Your task to perform on an android device: Go to settings Image 0: 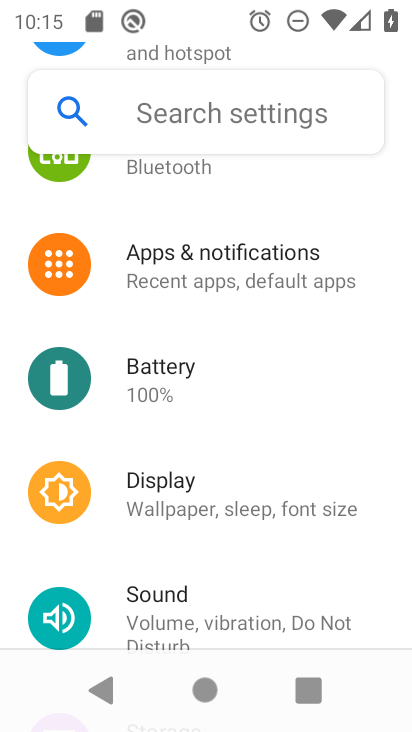
Step 0: task complete